Your task to perform on an android device: Go to CNN.com Image 0: 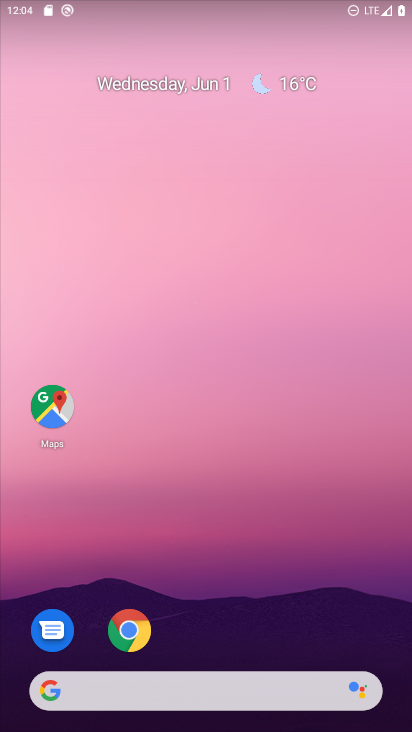
Step 0: type "reddit.com"
Your task to perform on an android device: Go to CNN.com Image 1: 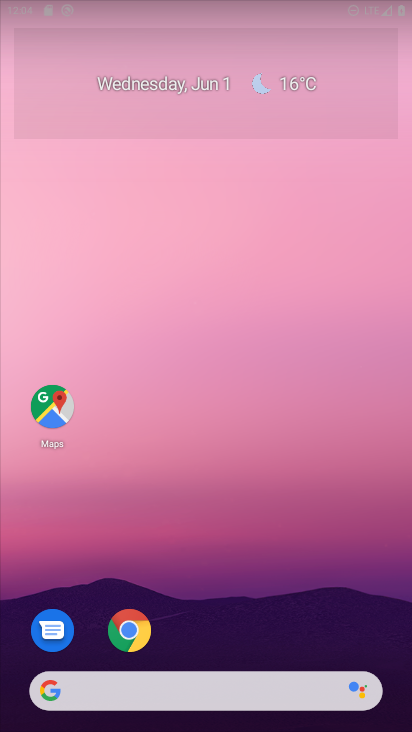
Step 1: type ""
Your task to perform on an android device: Go to CNN.com Image 2: 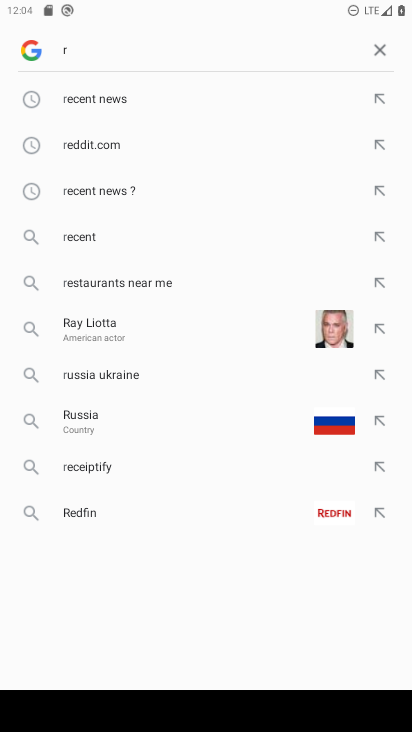
Step 2: click (289, 53)
Your task to perform on an android device: Go to CNN.com Image 3: 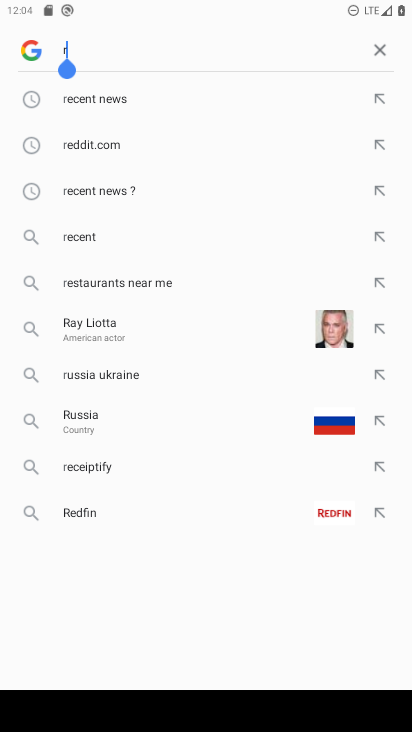
Step 3: click (379, 49)
Your task to perform on an android device: Go to CNN.com Image 4: 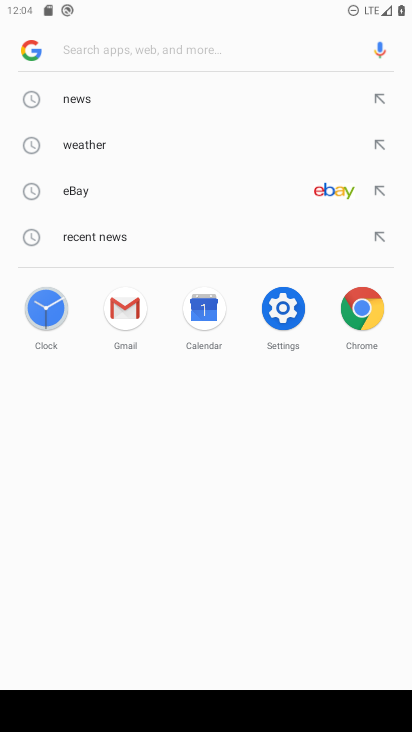
Step 4: type "cnn.com"
Your task to perform on an android device: Go to CNN.com Image 5: 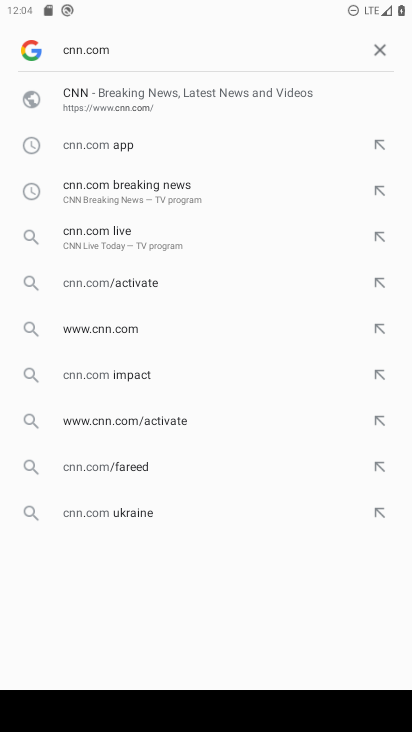
Step 5: click (136, 106)
Your task to perform on an android device: Go to CNN.com Image 6: 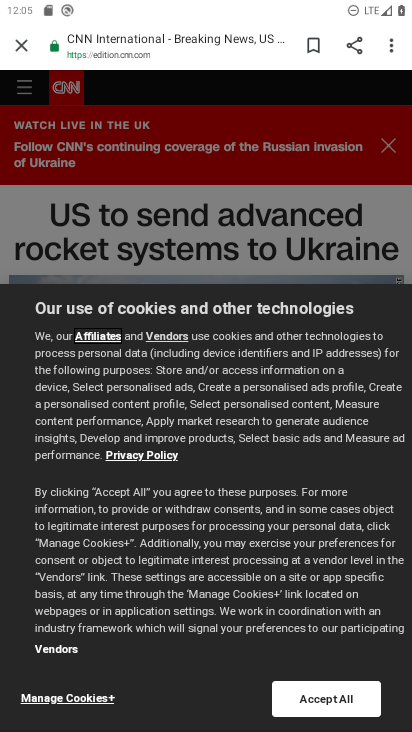
Step 6: task complete